Your task to perform on an android device: Open accessibility settings Image 0: 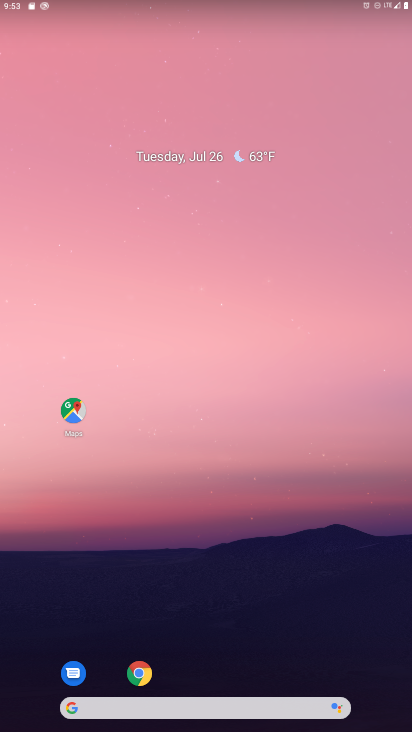
Step 0: drag from (308, 582) to (143, 0)
Your task to perform on an android device: Open accessibility settings Image 1: 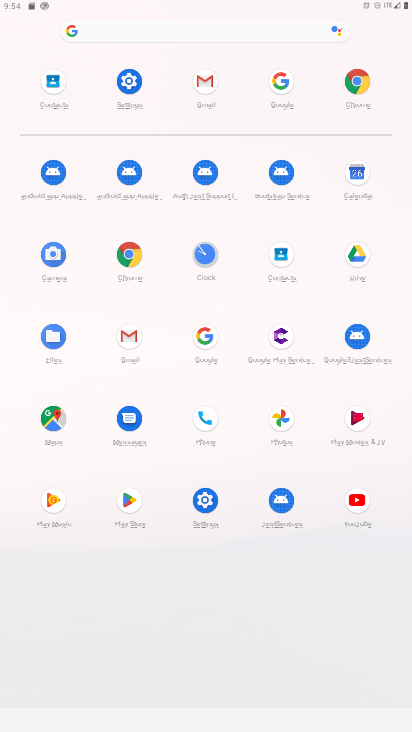
Step 1: click (202, 510)
Your task to perform on an android device: Open accessibility settings Image 2: 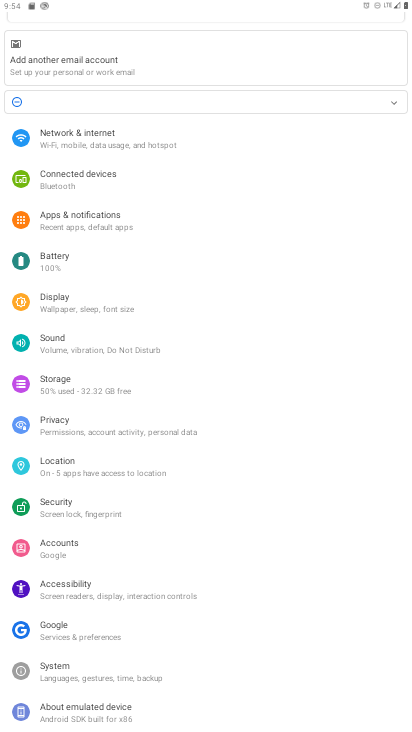
Step 2: click (98, 581)
Your task to perform on an android device: Open accessibility settings Image 3: 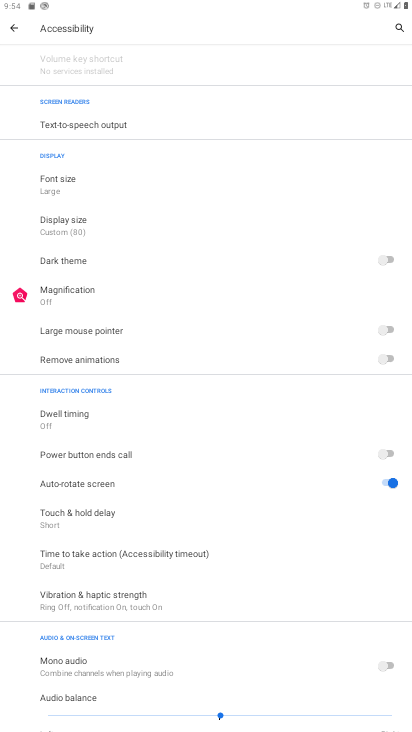
Step 3: task complete